Your task to perform on an android device: allow notifications from all sites in the chrome app Image 0: 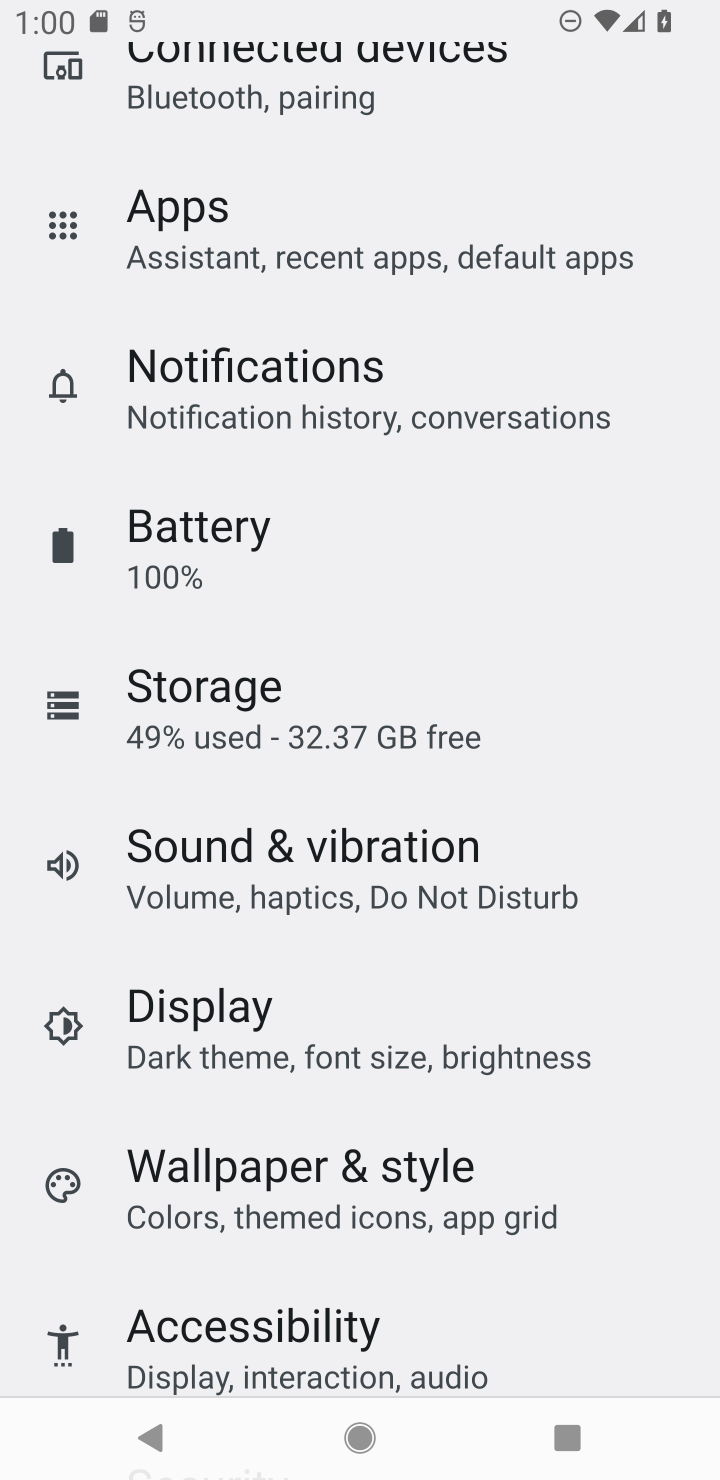
Step 0: press home button
Your task to perform on an android device: allow notifications from all sites in the chrome app Image 1: 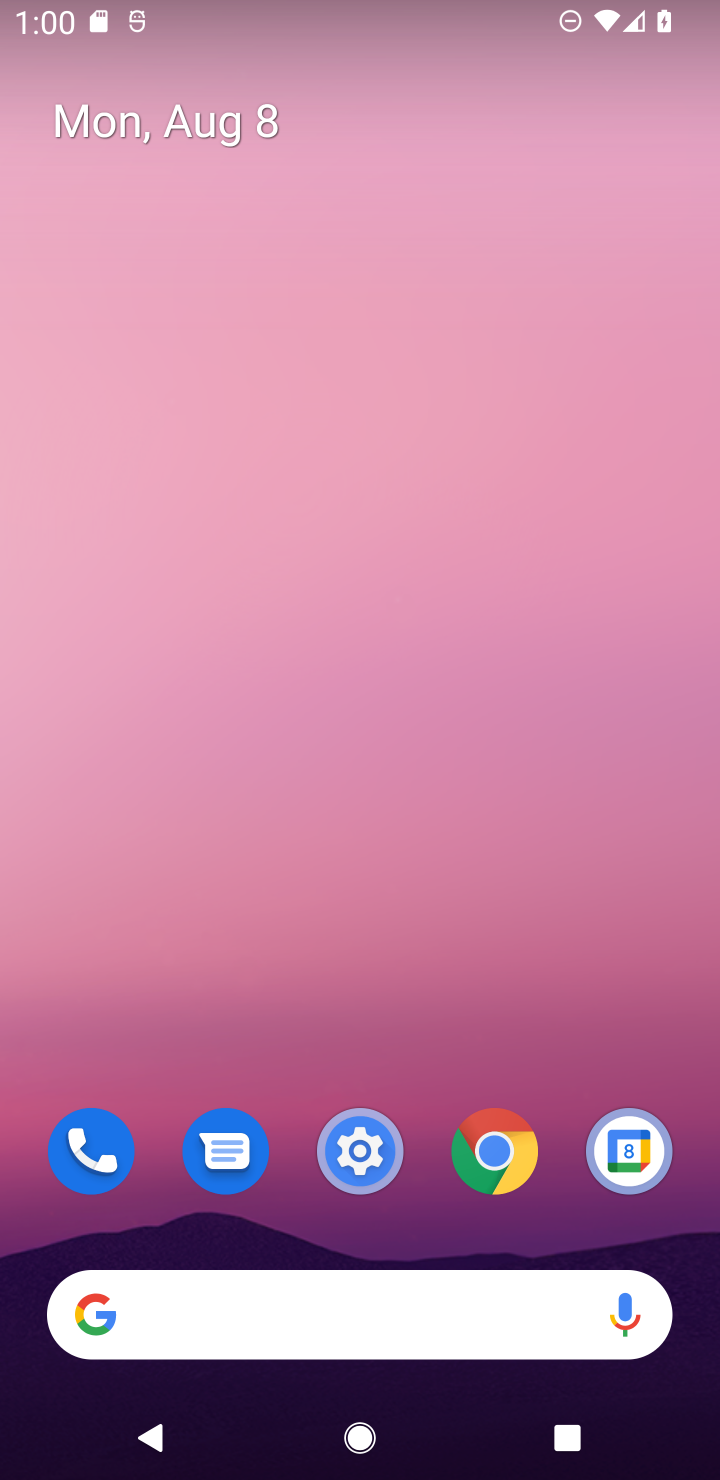
Step 1: click (499, 1177)
Your task to perform on an android device: allow notifications from all sites in the chrome app Image 2: 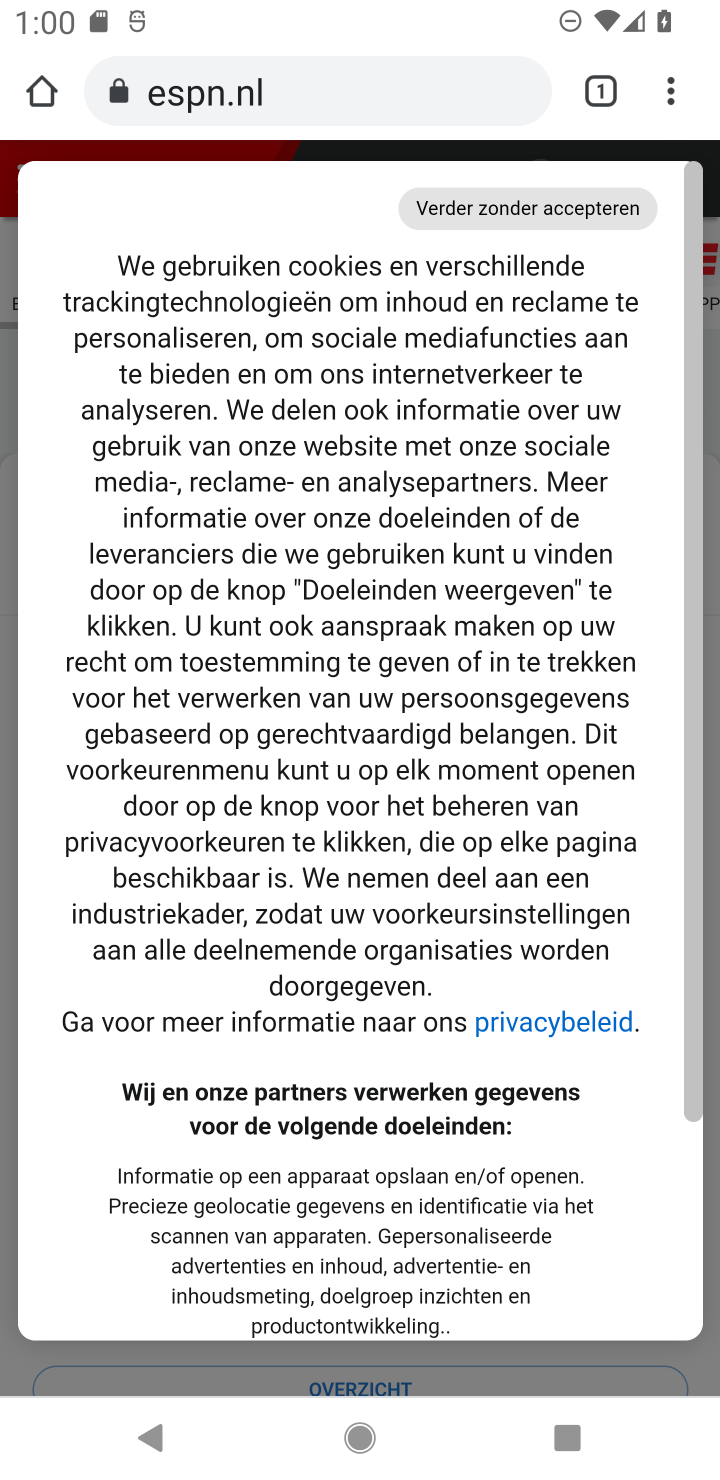
Step 2: click (678, 89)
Your task to perform on an android device: allow notifications from all sites in the chrome app Image 3: 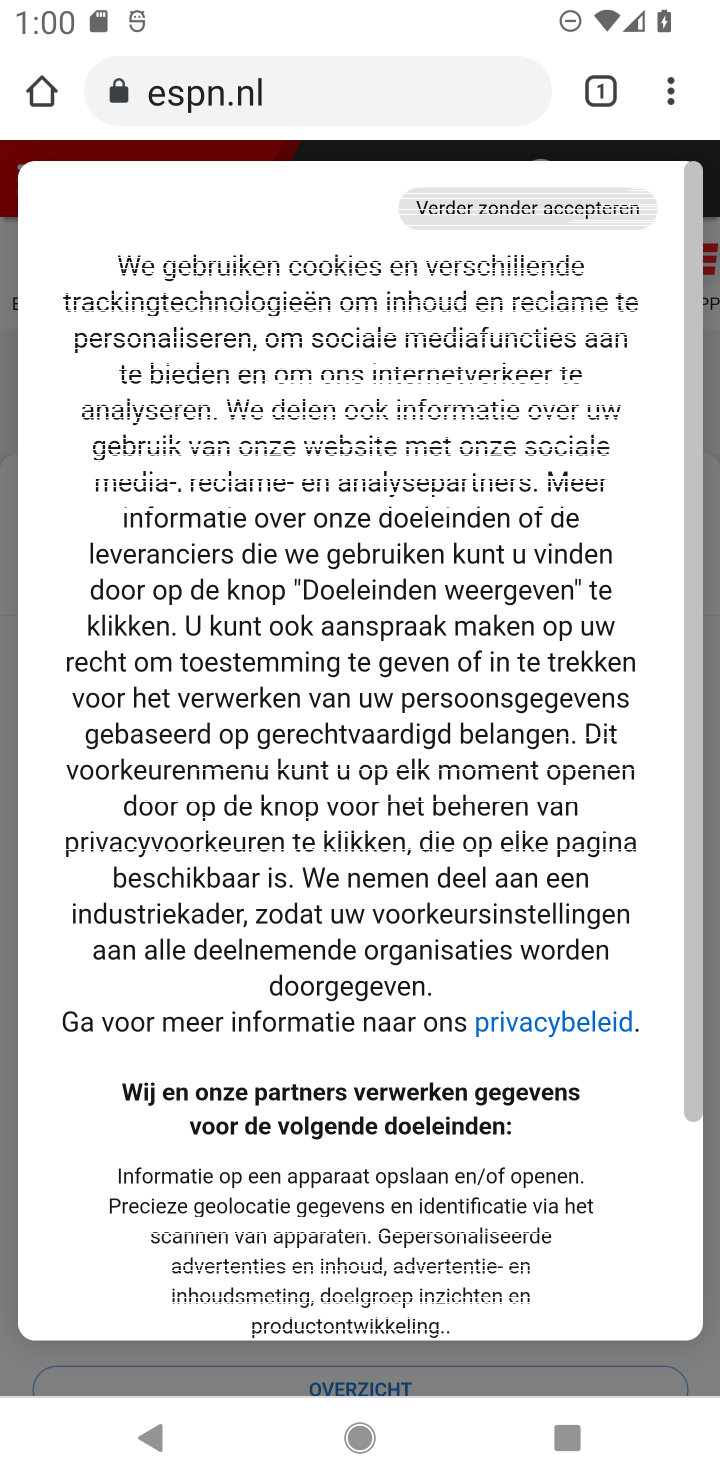
Step 3: click (677, 87)
Your task to perform on an android device: allow notifications from all sites in the chrome app Image 4: 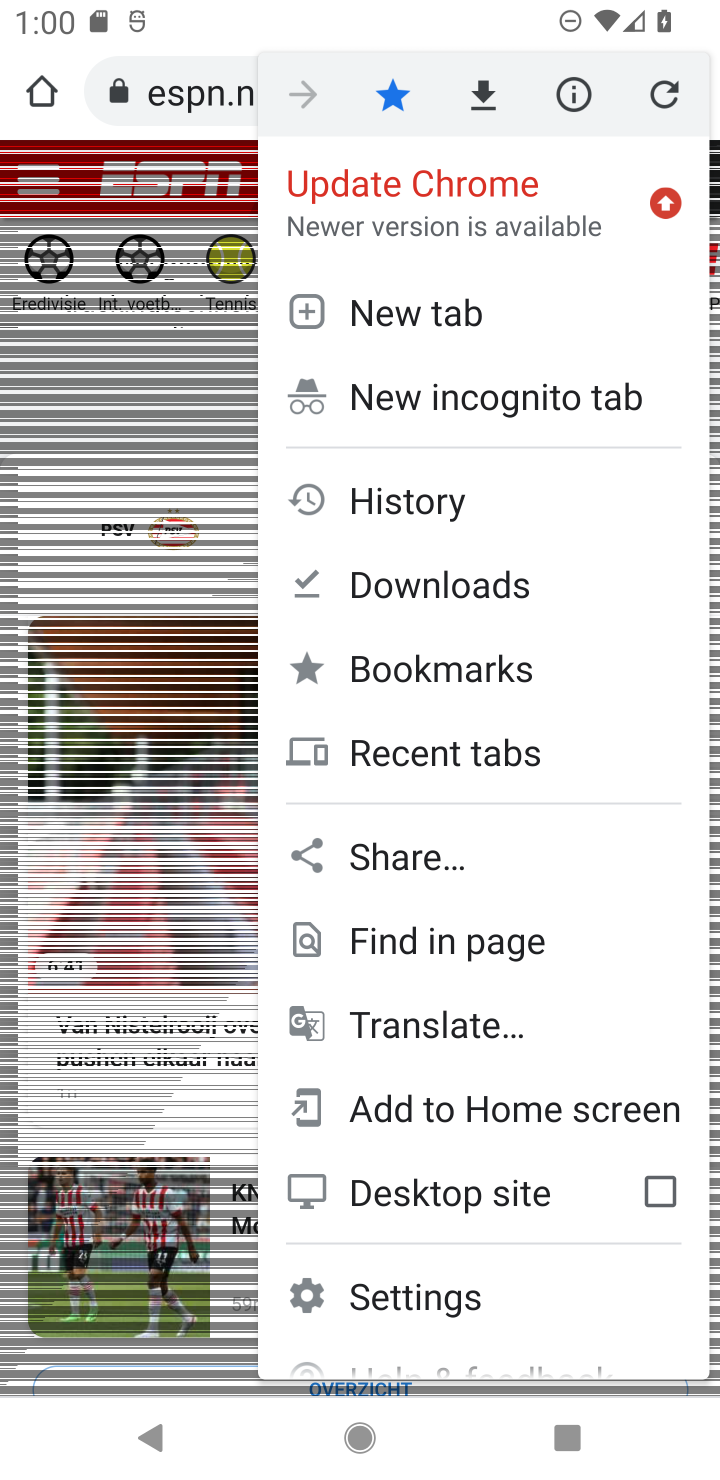
Step 4: click (426, 1303)
Your task to perform on an android device: allow notifications from all sites in the chrome app Image 5: 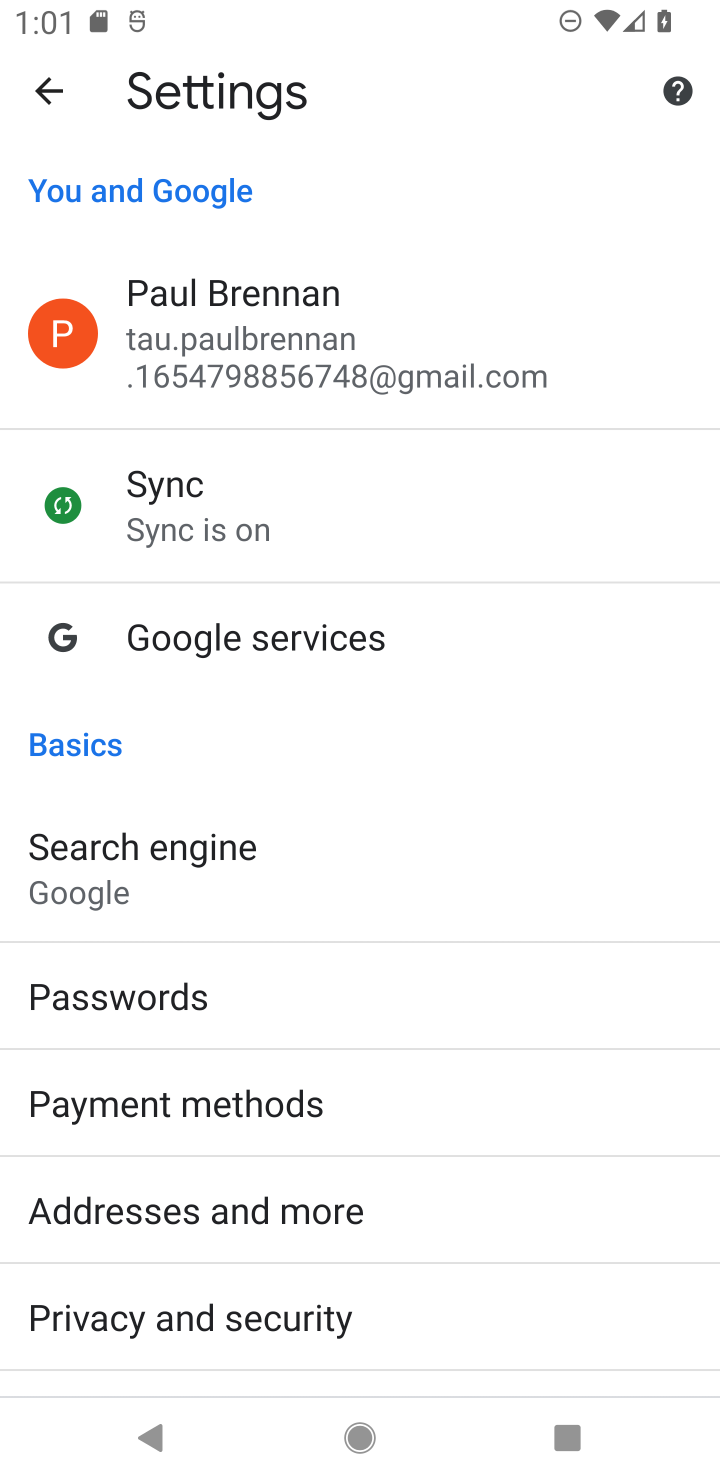
Step 5: drag from (144, 1322) to (63, 712)
Your task to perform on an android device: allow notifications from all sites in the chrome app Image 6: 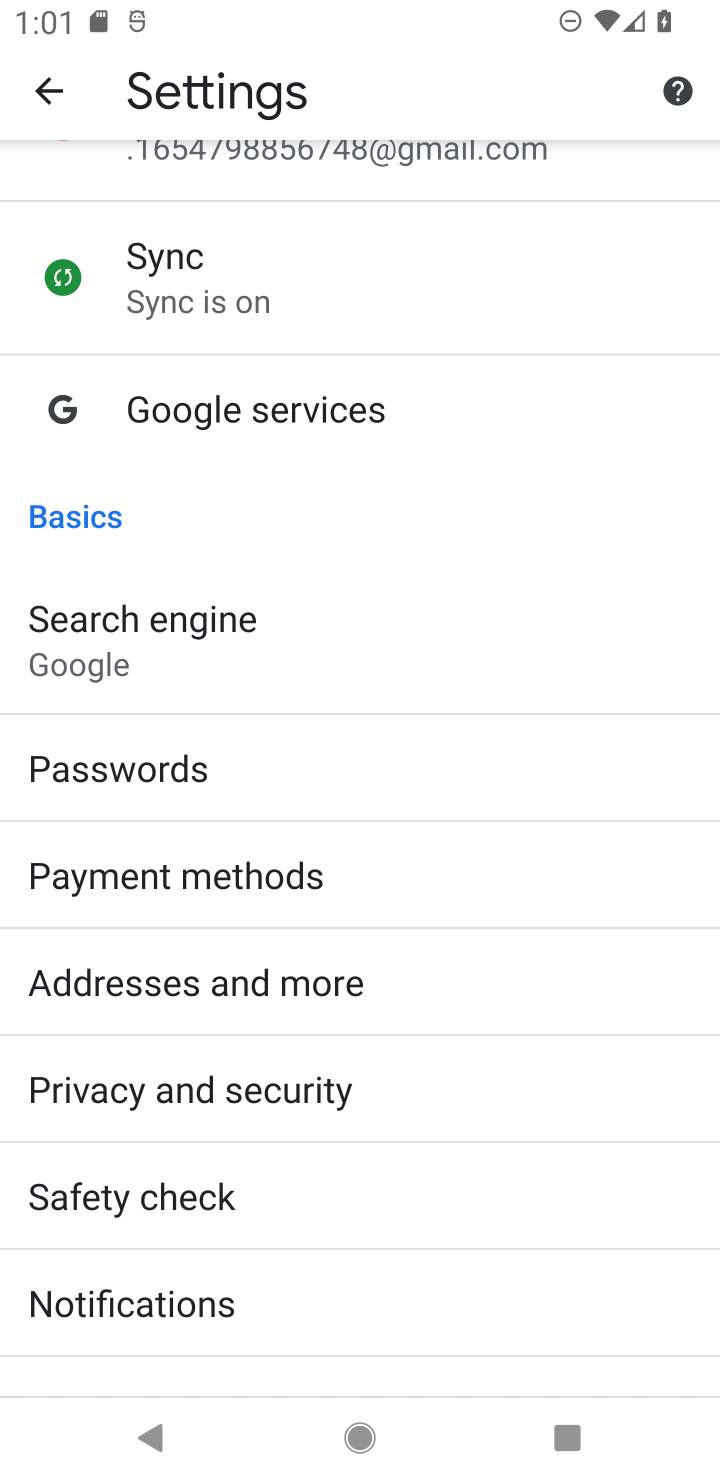
Step 6: drag from (64, 1352) to (183, 662)
Your task to perform on an android device: allow notifications from all sites in the chrome app Image 7: 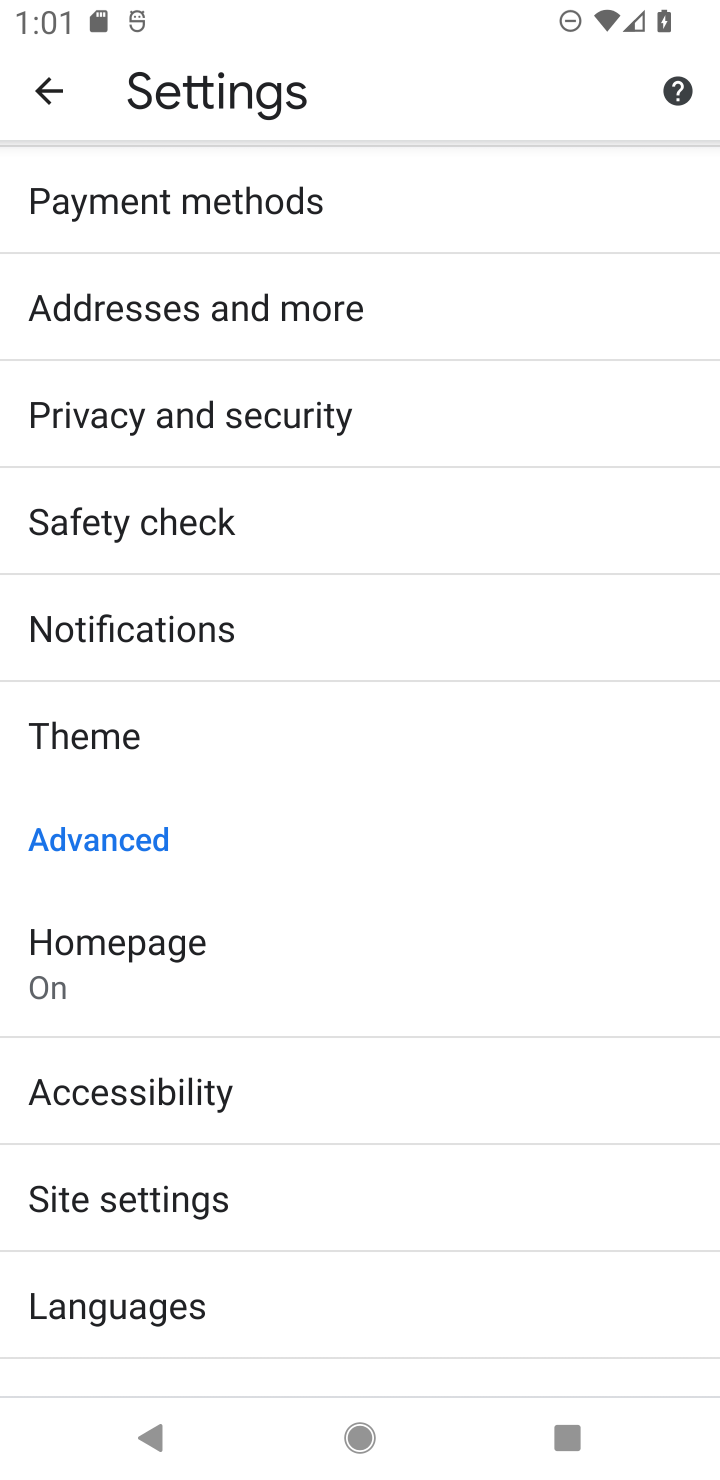
Step 7: click (114, 1210)
Your task to perform on an android device: allow notifications from all sites in the chrome app Image 8: 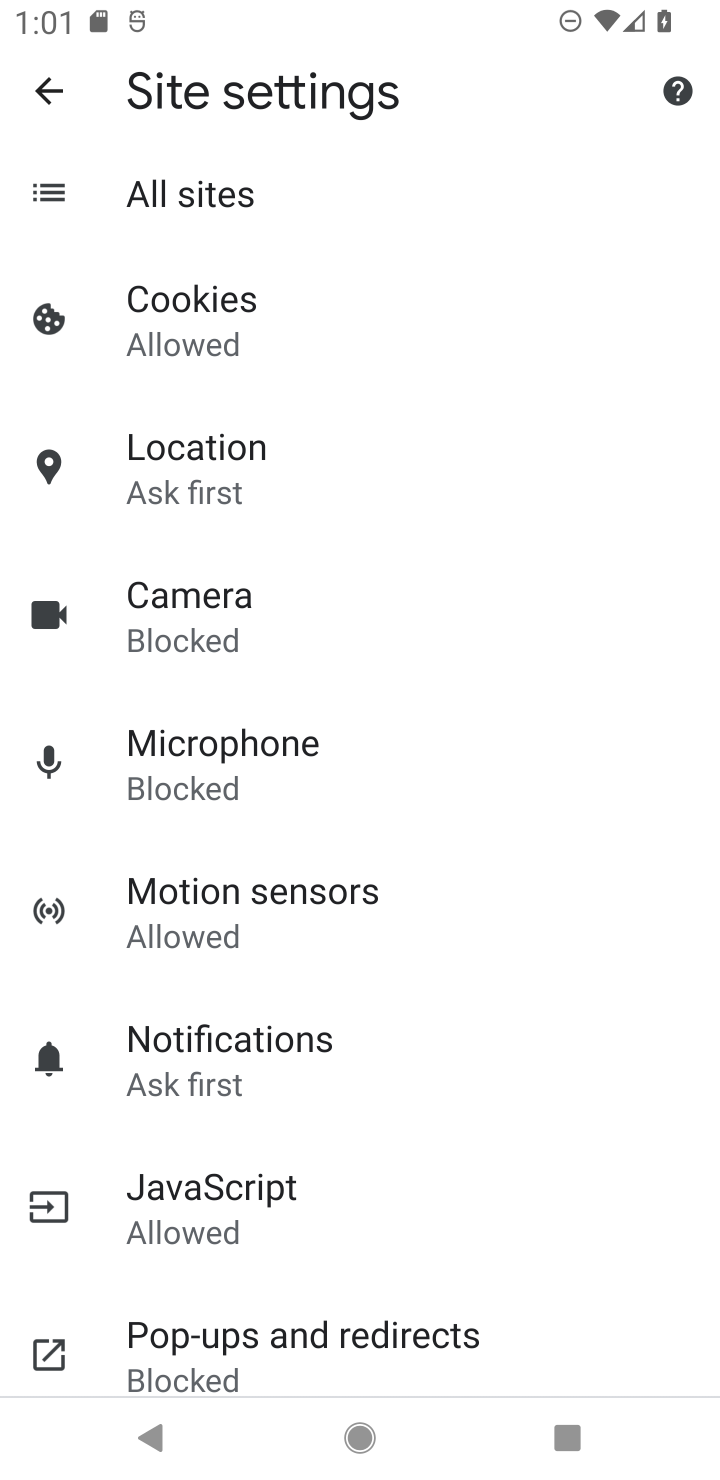
Step 8: click (186, 340)
Your task to perform on an android device: allow notifications from all sites in the chrome app Image 9: 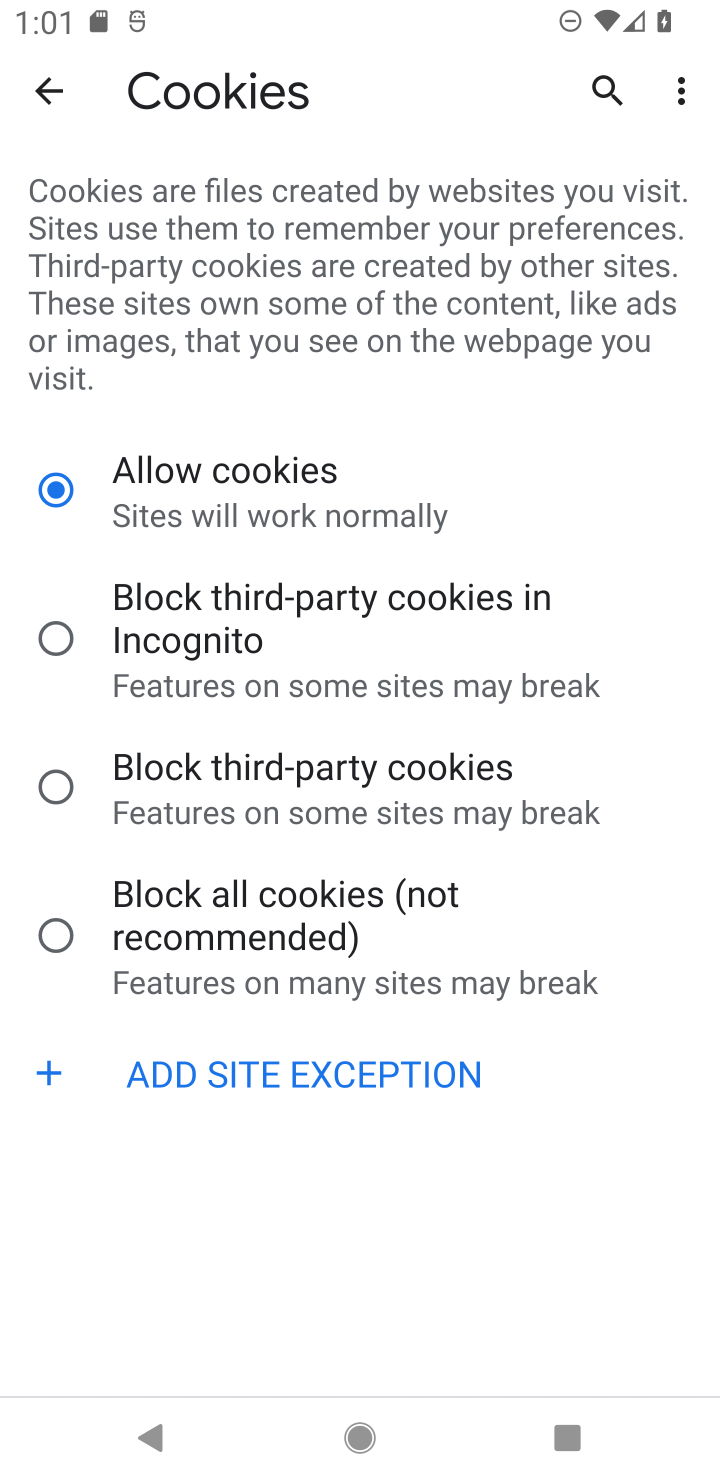
Step 9: task complete